Your task to perform on an android device: turn vacation reply on in the gmail app Image 0: 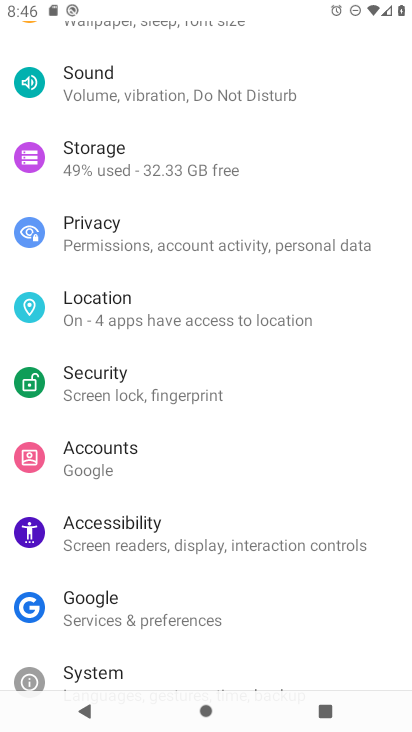
Step 0: press home button
Your task to perform on an android device: turn vacation reply on in the gmail app Image 1: 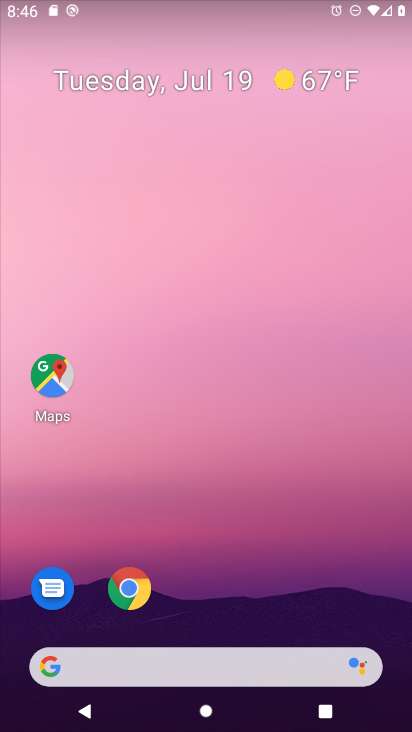
Step 1: drag from (340, 545) to (350, 103)
Your task to perform on an android device: turn vacation reply on in the gmail app Image 2: 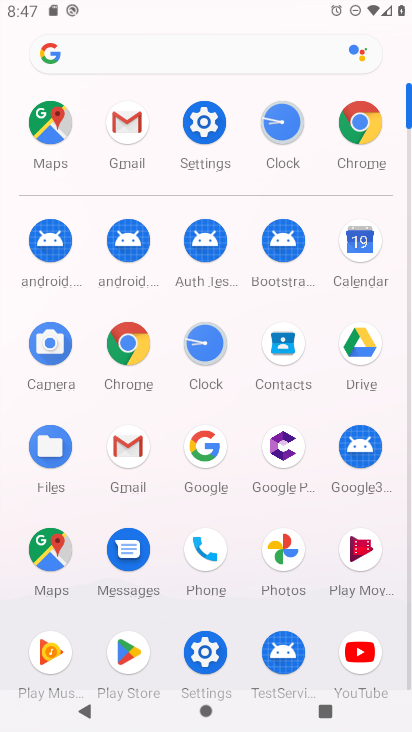
Step 2: click (114, 452)
Your task to perform on an android device: turn vacation reply on in the gmail app Image 3: 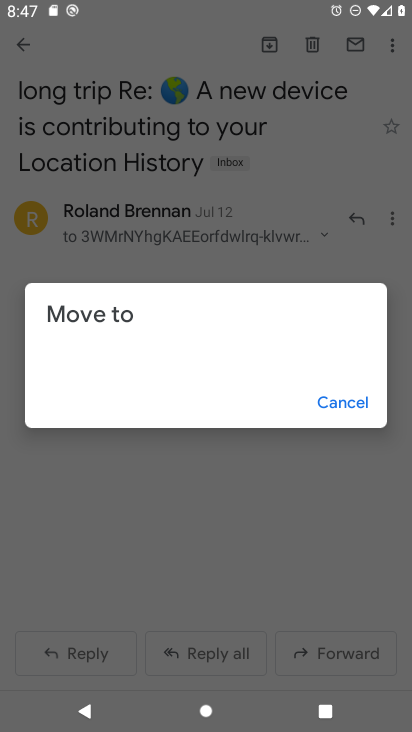
Step 3: press back button
Your task to perform on an android device: turn vacation reply on in the gmail app Image 4: 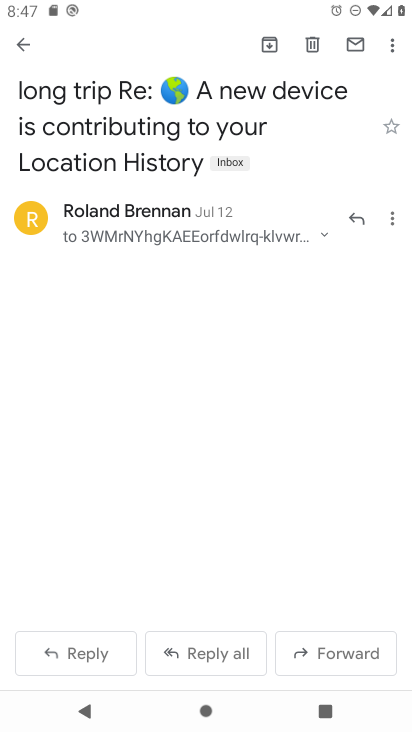
Step 4: press back button
Your task to perform on an android device: turn vacation reply on in the gmail app Image 5: 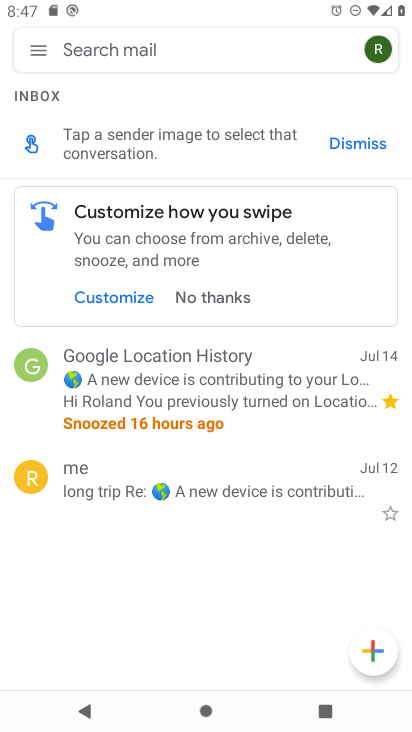
Step 5: click (44, 54)
Your task to perform on an android device: turn vacation reply on in the gmail app Image 6: 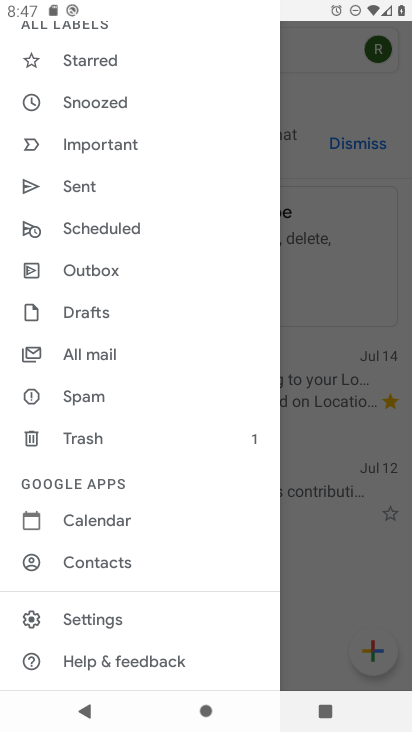
Step 6: click (132, 614)
Your task to perform on an android device: turn vacation reply on in the gmail app Image 7: 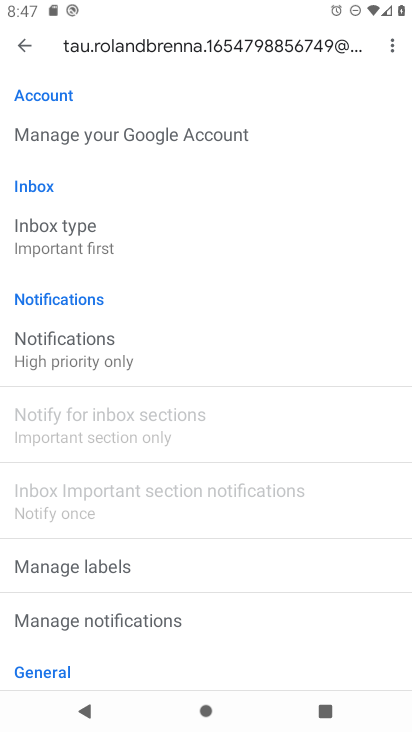
Step 7: drag from (312, 591) to (324, 478)
Your task to perform on an android device: turn vacation reply on in the gmail app Image 8: 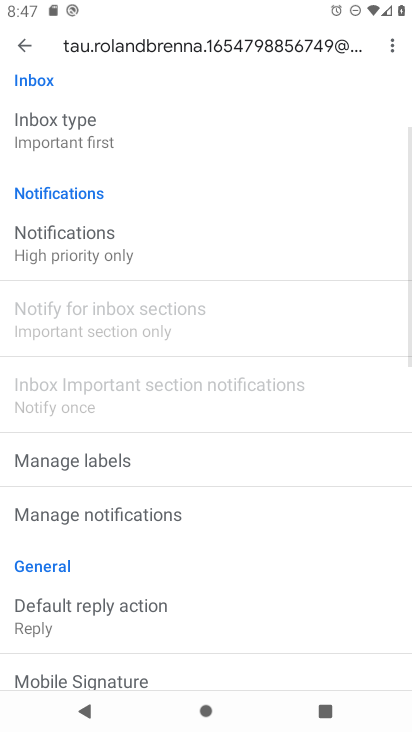
Step 8: drag from (337, 630) to (335, 352)
Your task to perform on an android device: turn vacation reply on in the gmail app Image 9: 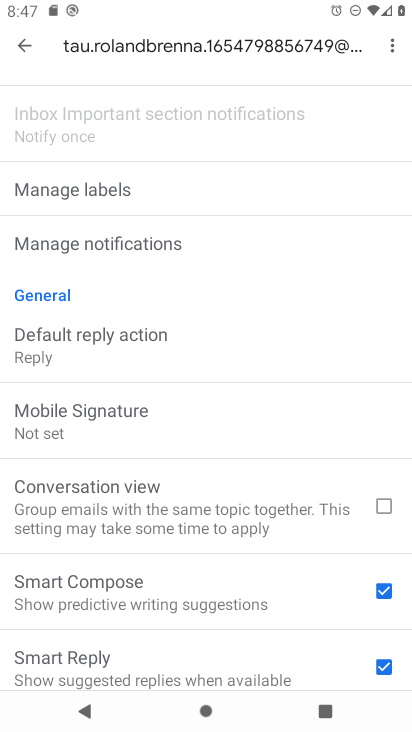
Step 9: drag from (305, 607) to (290, 356)
Your task to perform on an android device: turn vacation reply on in the gmail app Image 10: 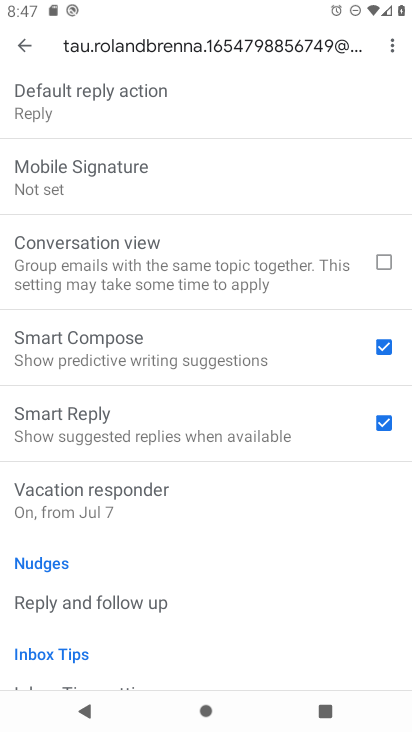
Step 10: click (182, 507)
Your task to perform on an android device: turn vacation reply on in the gmail app Image 11: 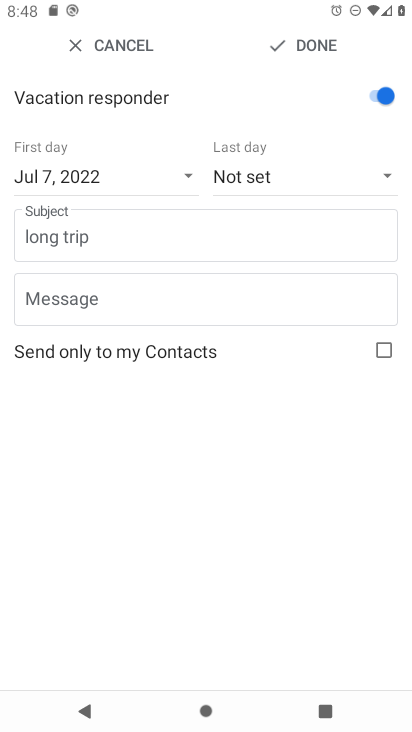
Step 11: task complete